Your task to perform on an android device: add a contact Image 0: 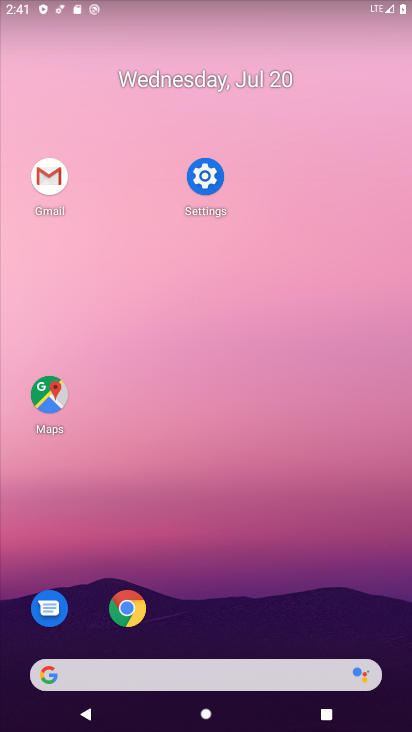
Step 0: drag from (209, 648) to (189, 231)
Your task to perform on an android device: add a contact Image 1: 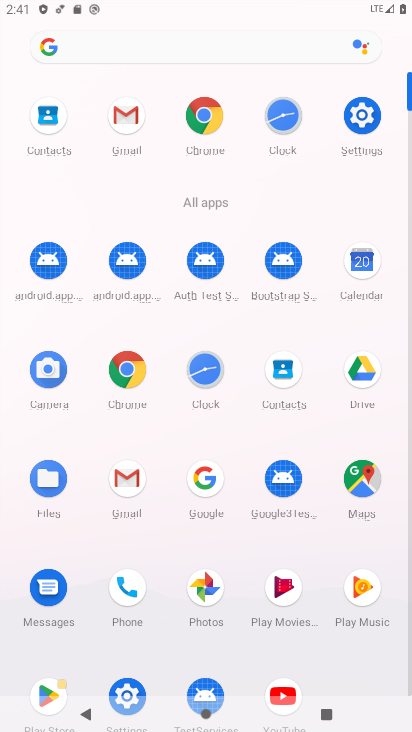
Step 1: click (280, 363)
Your task to perform on an android device: add a contact Image 2: 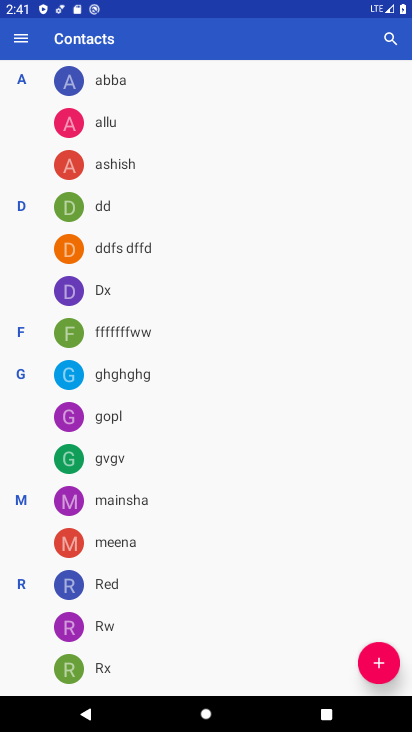
Step 2: click (389, 662)
Your task to perform on an android device: add a contact Image 3: 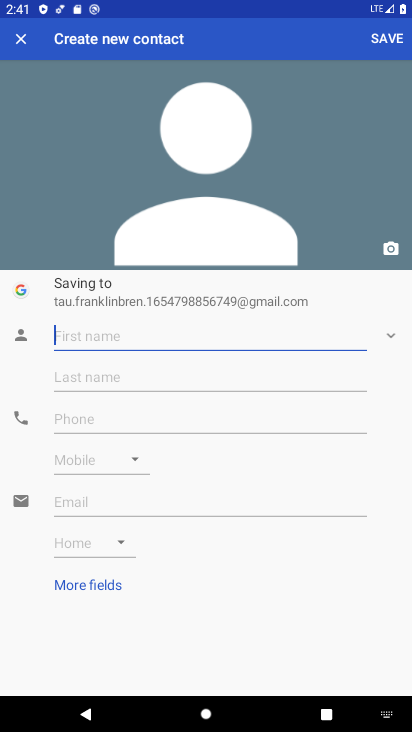
Step 3: type "rr"
Your task to perform on an android device: add a contact Image 4: 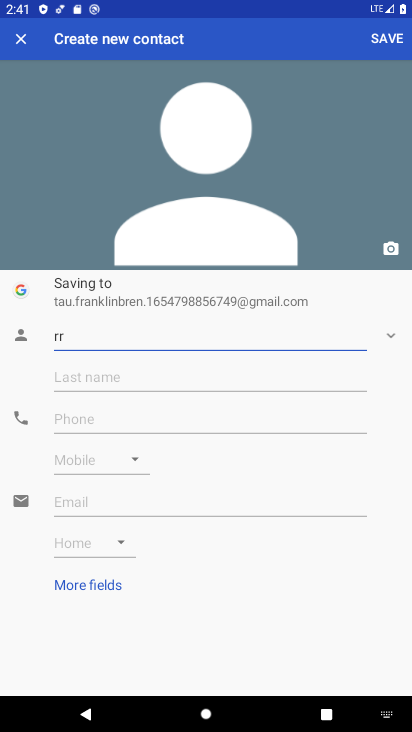
Step 4: click (206, 420)
Your task to perform on an android device: add a contact Image 5: 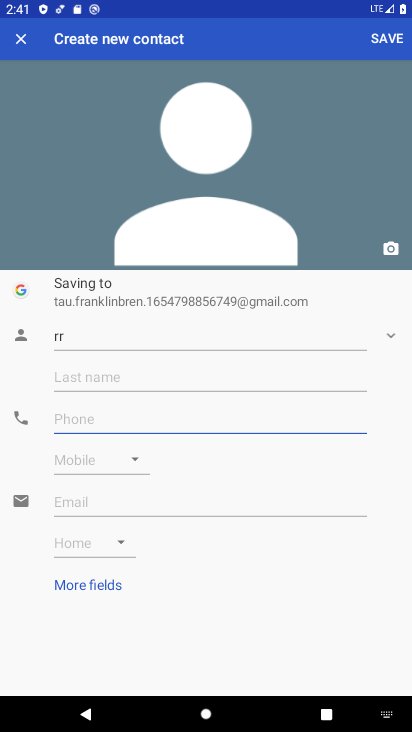
Step 5: type "2234567890"
Your task to perform on an android device: add a contact Image 6: 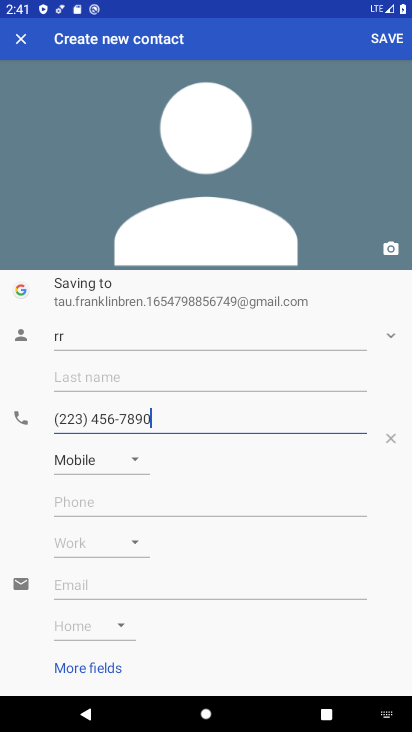
Step 6: click (372, 43)
Your task to perform on an android device: add a contact Image 7: 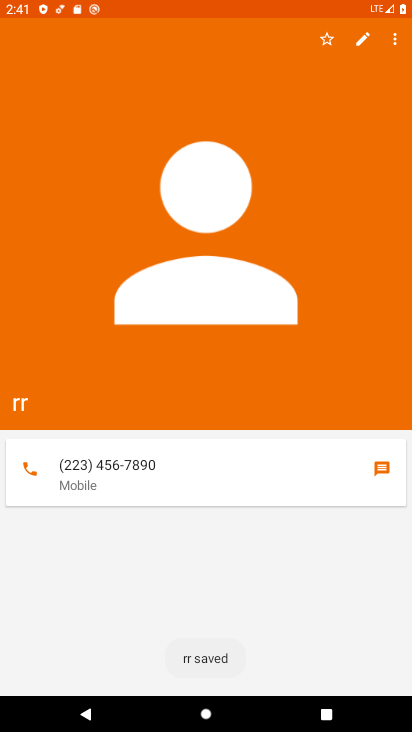
Step 7: task complete